Your task to perform on an android device: Open battery settings Image 0: 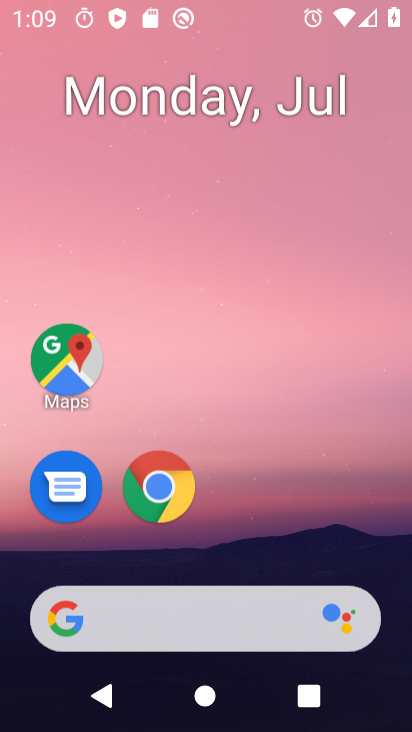
Step 0: press home button
Your task to perform on an android device: Open battery settings Image 1: 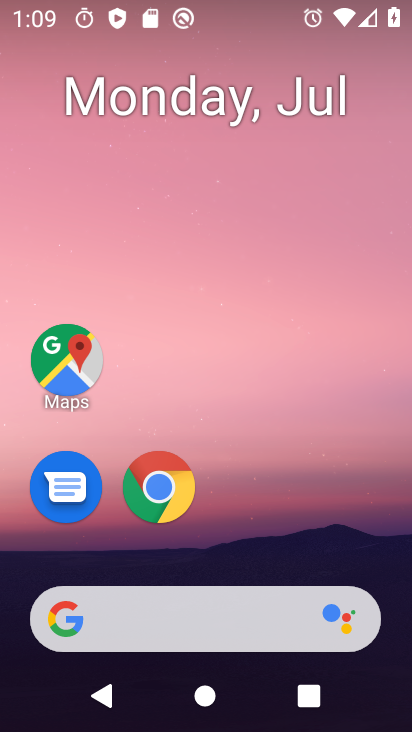
Step 1: drag from (315, 517) to (325, 71)
Your task to perform on an android device: Open battery settings Image 2: 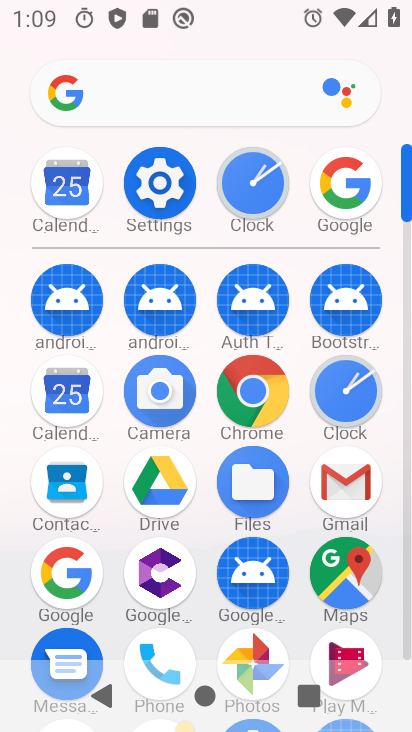
Step 2: click (169, 193)
Your task to perform on an android device: Open battery settings Image 3: 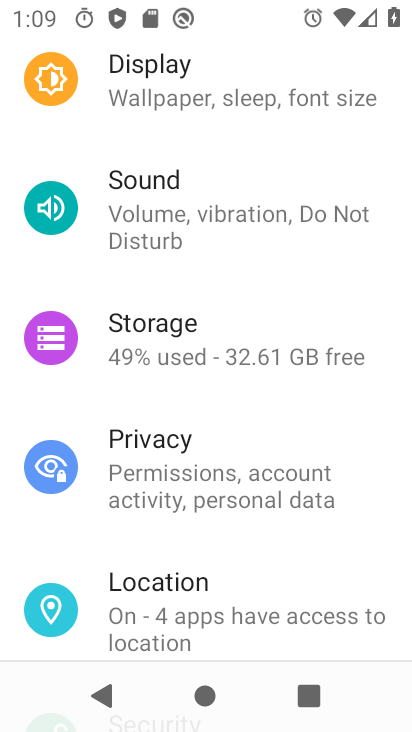
Step 3: drag from (59, 266) to (44, 537)
Your task to perform on an android device: Open battery settings Image 4: 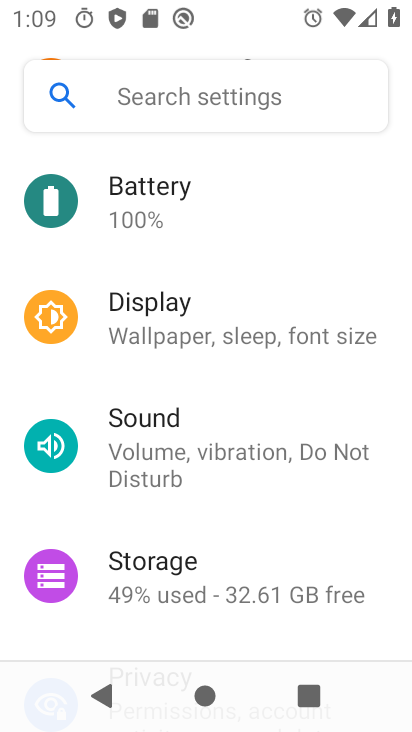
Step 4: click (172, 184)
Your task to perform on an android device: Open battery settings Image 5: 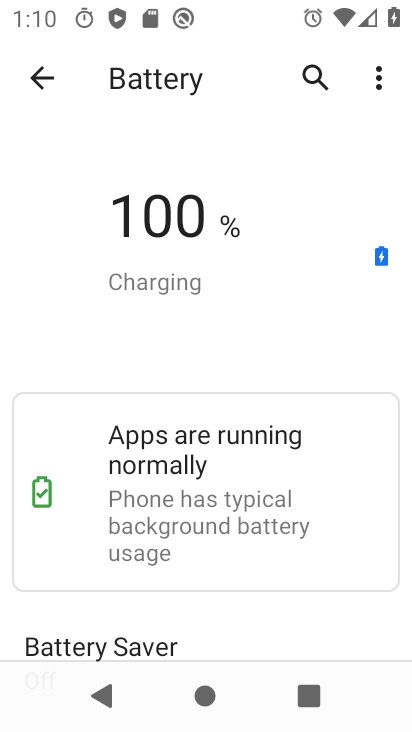
Step 5: task complete